Your task to perform on an android device: What's the news in India? Image 0: 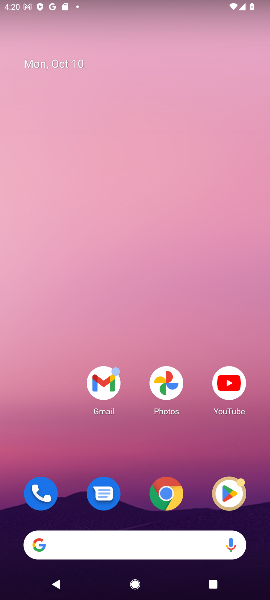
Step 0: click (167, 544)
Your task to perform on an android device: What's the news in India? Image 1: 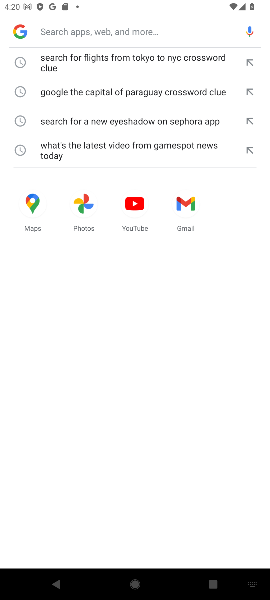
Step 1: type "What's the news in India?"
Your task to perform on an android device: What's the news in India? Image 2: 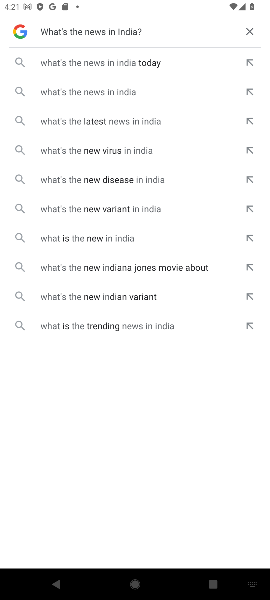
Step 2: click (123, 67)
Your task to perform on an android device: What's the news in India? Image 3: 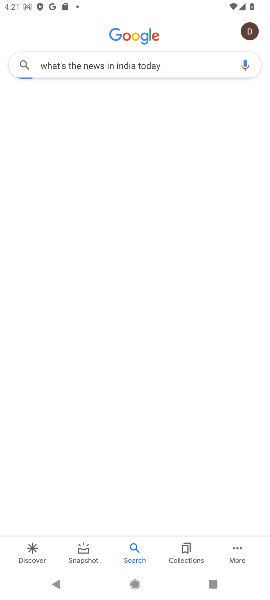
Step 3: task complete